Your task to perform on an android device: delete the emails in spam in the gmail app Image 0: 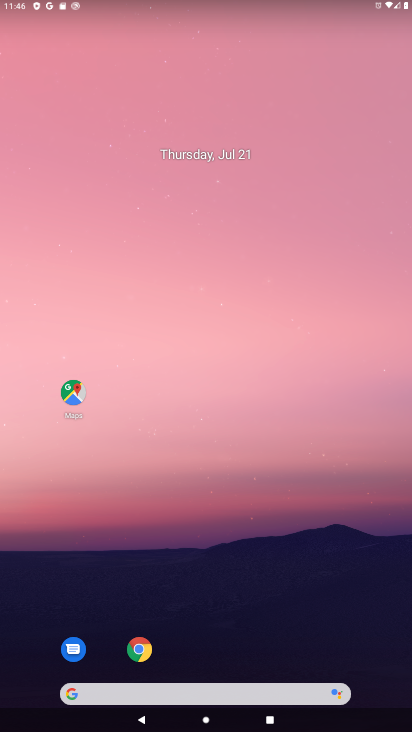
Step 0: drag from (286, 563) to (278, 101)
Your task to perform on an android device: delete the emails in spam in the gmail app Image 1: 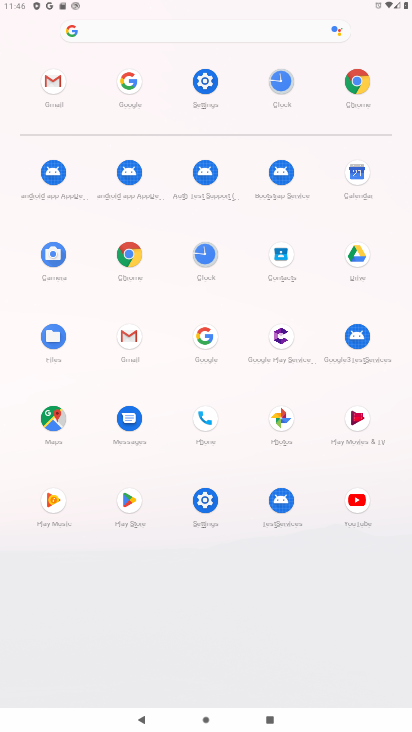
Step 1: click (56, 87)
Your task to perform on an android device: delete the emails in spam in the gmail app Image 2: 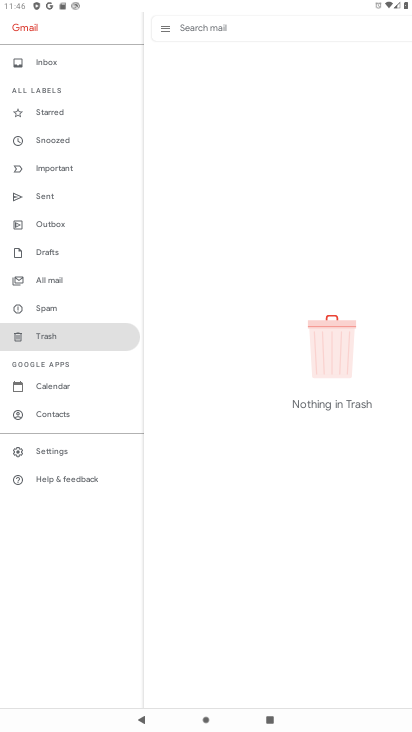
Step 2: click (43, 310)
Your task to perform on an android device: delete the emails in spam in the gmail app Image 3: 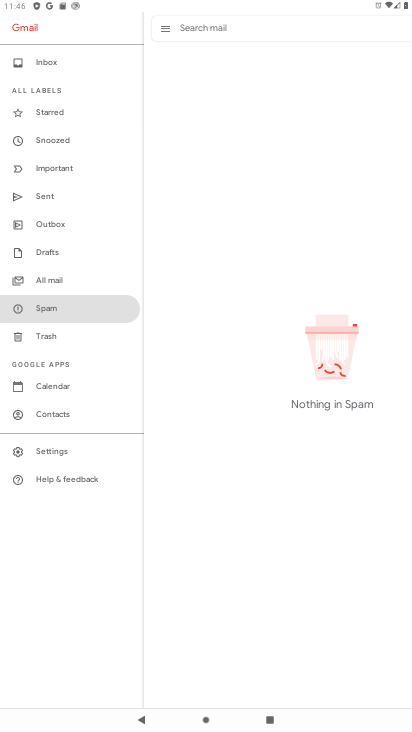
Step 3: task complete